Your task to perform on an android device: When is my next meeting? Image 0: 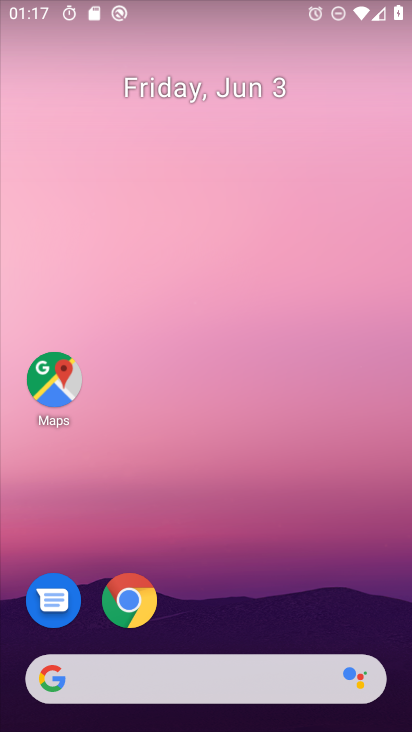
Step 0: drag from (305, 559) to (106, 5)
Your task to perform on an android device: When is my next meeting? Image 1: 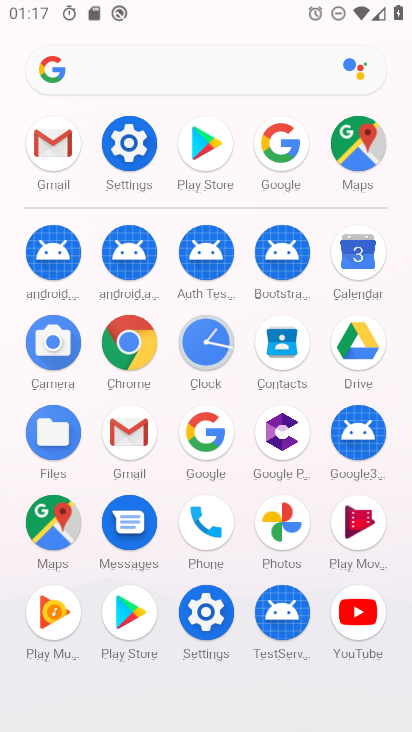
Step 1: click (363, 256)
Your task to perform on an android device: When is my next meeting? Image 2: 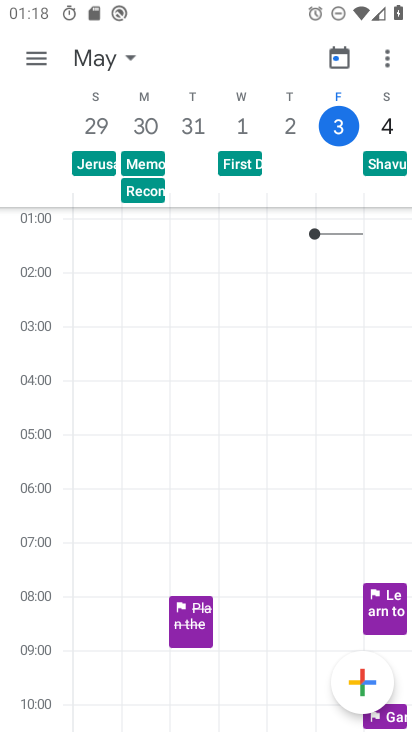
Step 2: click (37, 62)
Your task to perform on an android device: When is my next meeting? Image 3: 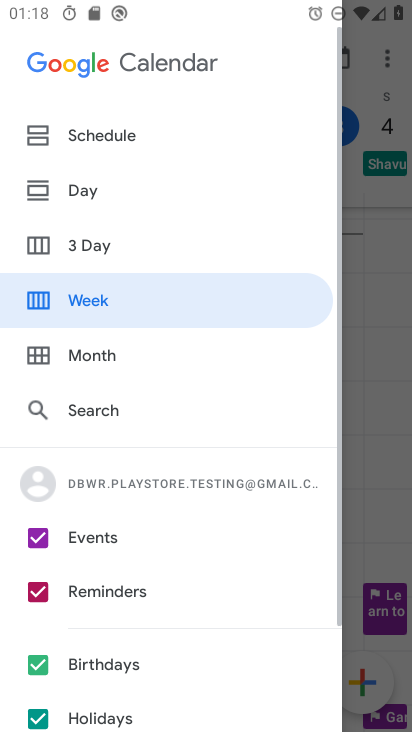
Step 3: click (96, 130)
Your task to perform on an android device: When is my next meeting? Image 4: 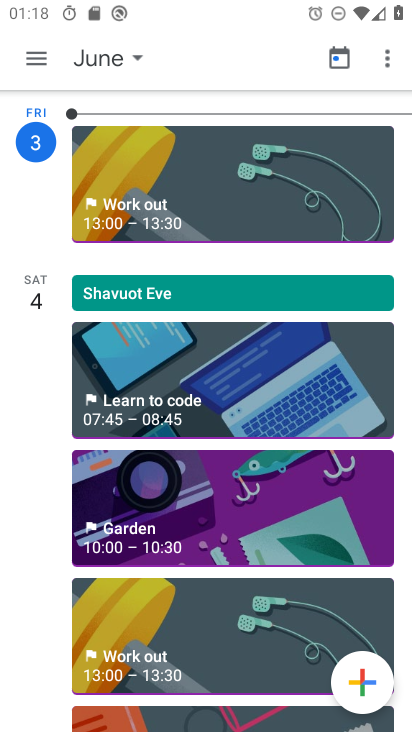
Step 4: click (39, 53)
Your task to perform on an android device: When is my next meeting? Image 5: 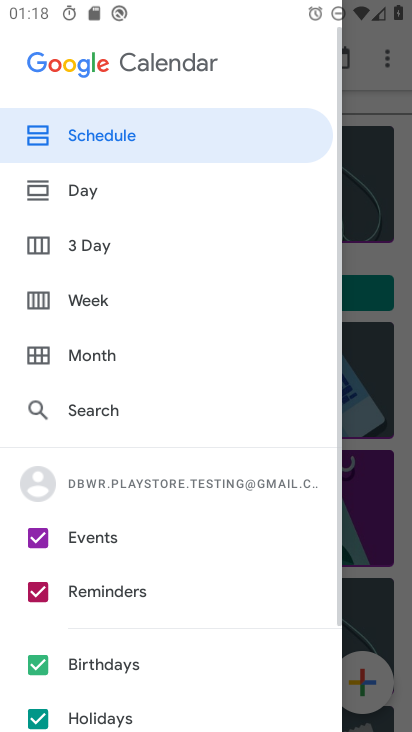
Step 5: drag from (132, 627) to (150, 535)
Your task to perform on an android device: When is my next meeting? Image 6: 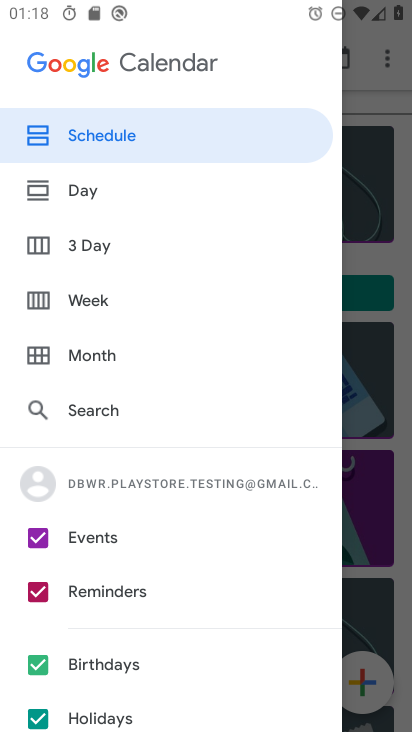
Step 6: click (153, 134)
Your task to perform on an android device: When is my next meeting? Image 7: 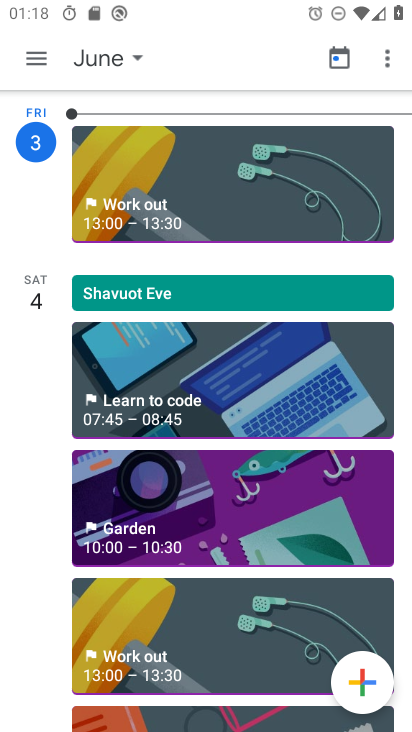
Step 7: click (134, 68)
Your task to perform on an android device: When is my next meeting? Image 8: 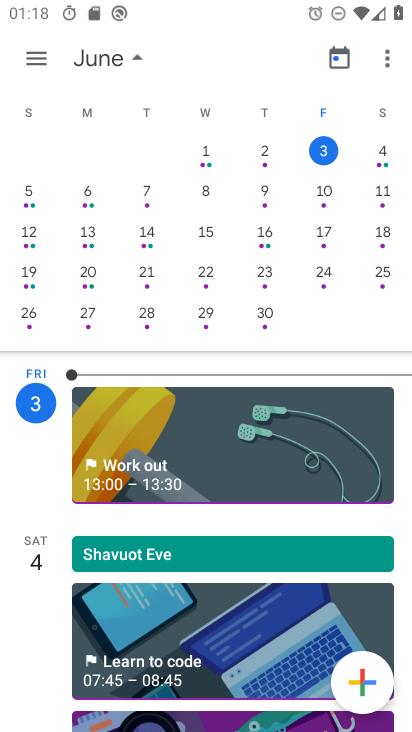
Step 8: click (378, 151)
Your task to perform on an android device: When is my next meeting? Image 9: 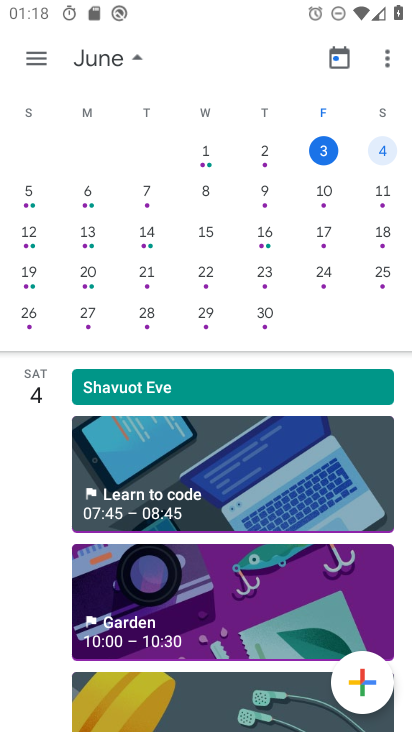
Step 9: task complete